Your task to perform on an android device: open app "Google Home" (install if not already installed) Image 0: 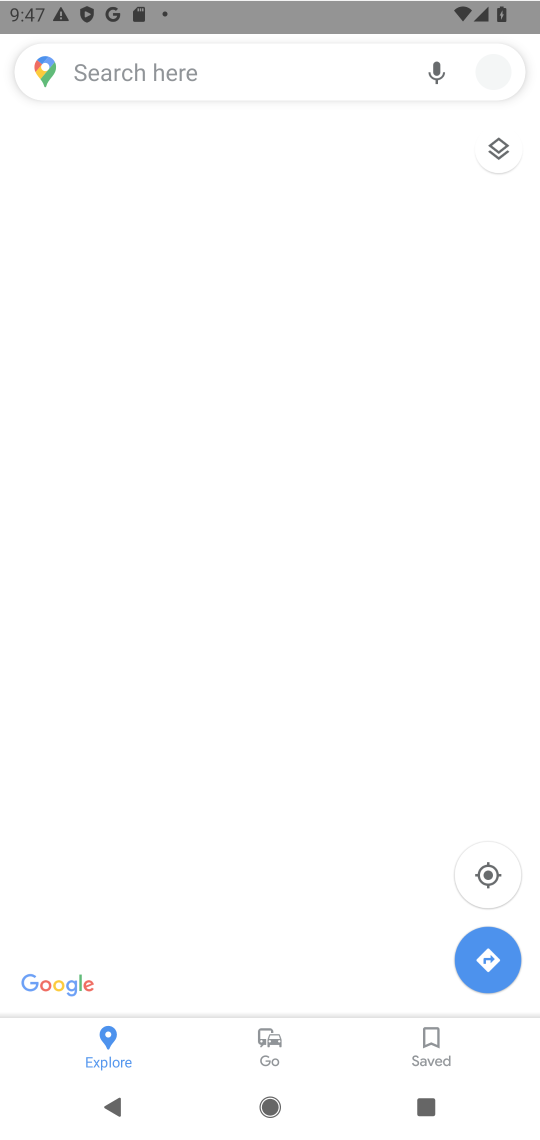
Step 0: press home button
Your task to perform on an android device: open app "Google Home" (install if not already installed) Image 1: 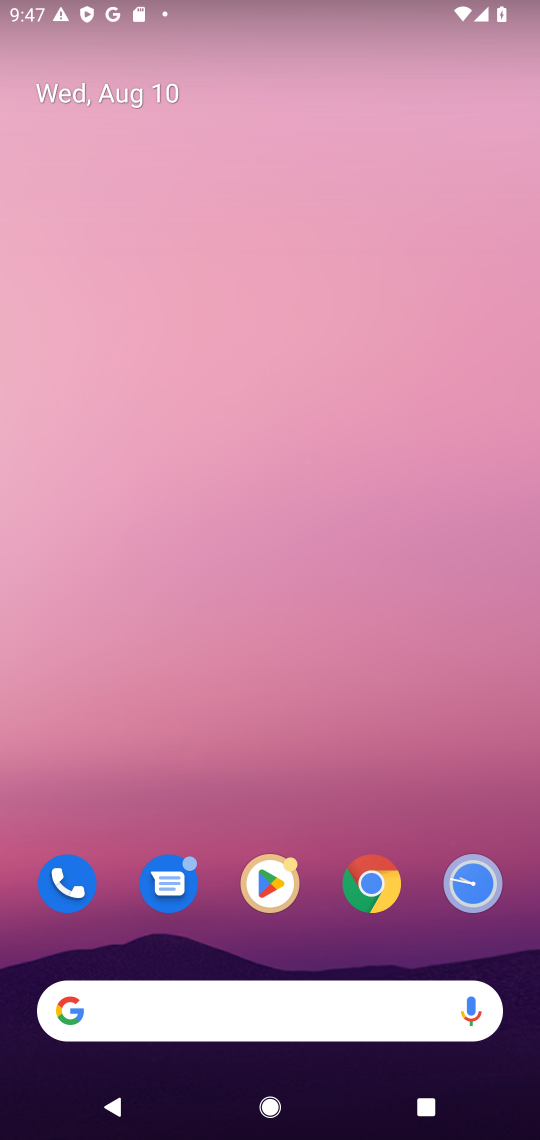
Step 1: drag from (436, 653) to (430, 57)
Your task to perform on an android device: open app "Google Home" (install if not already installed) Image 2: 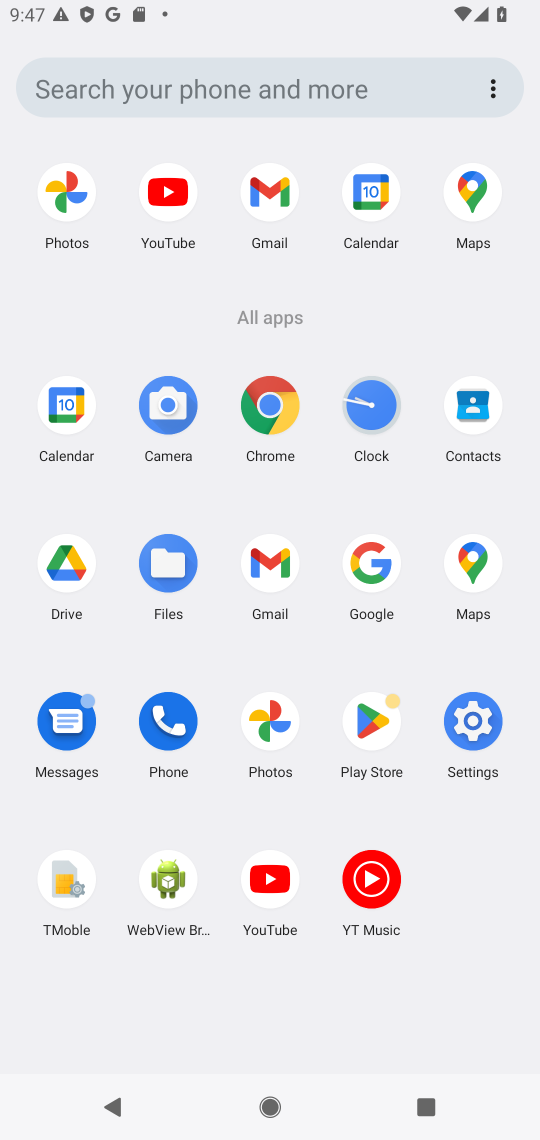
Step 2: click (370, 737)
Your task to perform on an android device: open app "Google Home" (install if not already installed) Image 3: 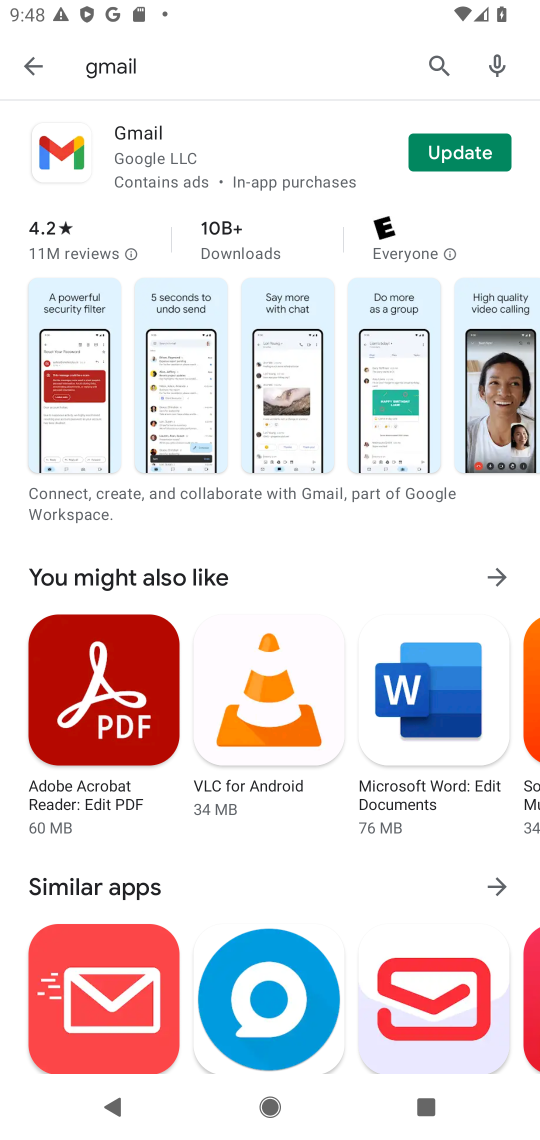
Step 3: click (428, 60)
Your task to perform on an android device: open app "Google Home" (install if not already installed) Image 4: 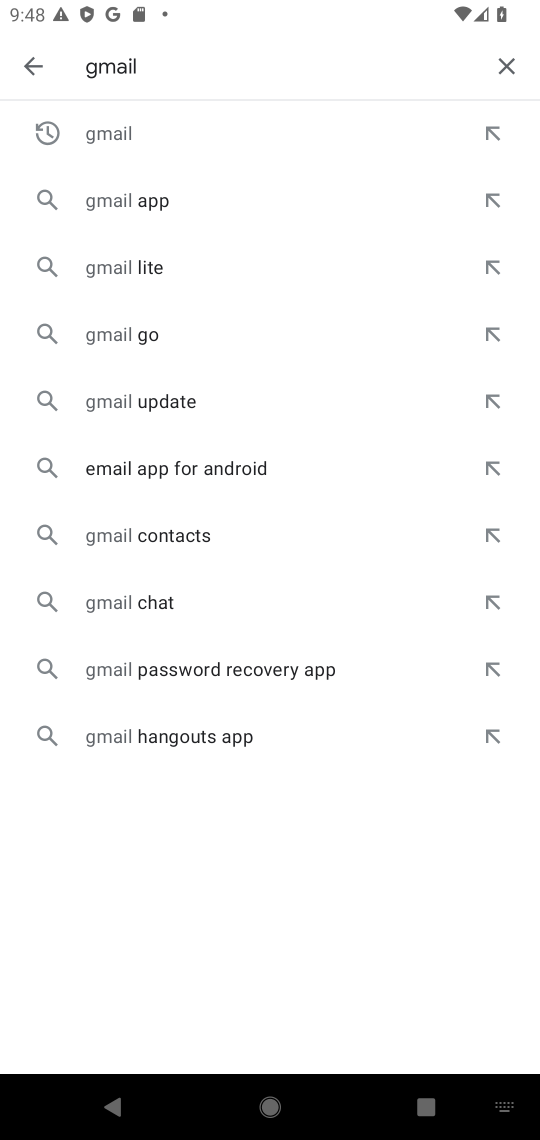
Step 4: click (508, 71)
Your task to perform on an android device: open app "Google Home" (install if not already installed) Image 5: 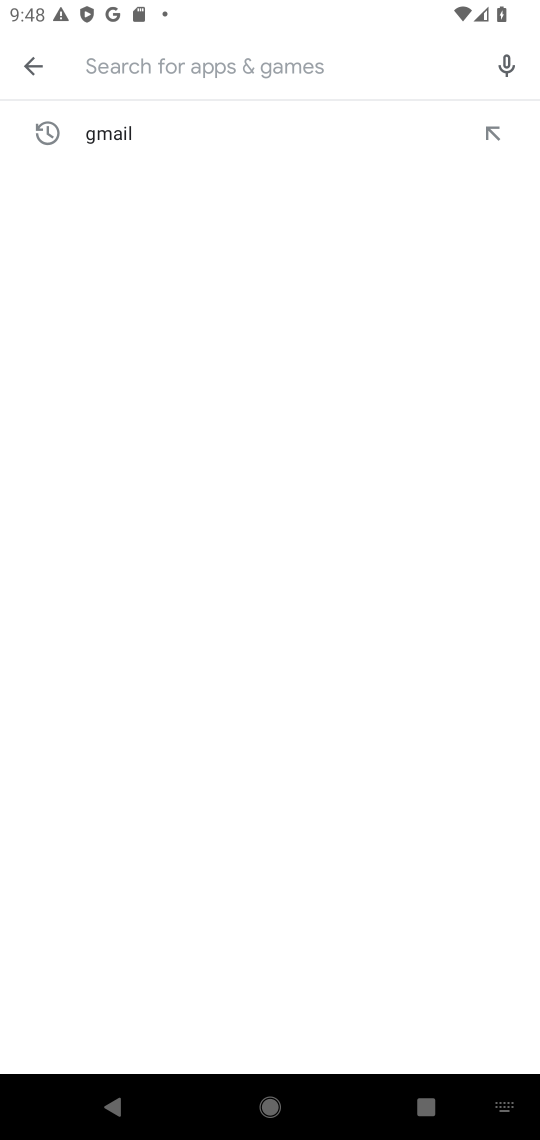
Step 5: type "google home"
Your task to perform on an android device: open app "Google Home" (install if not already installed) Image 6: 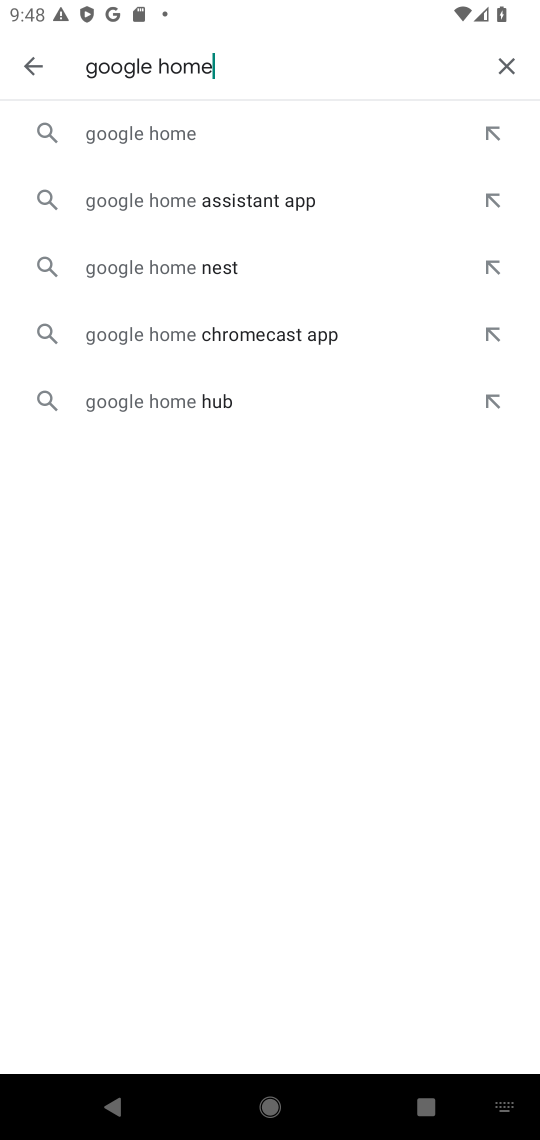
Step 6: click (213, 134)
Your task to perform on an android device: open app "Google Home" (install if not already installed) Image 7: 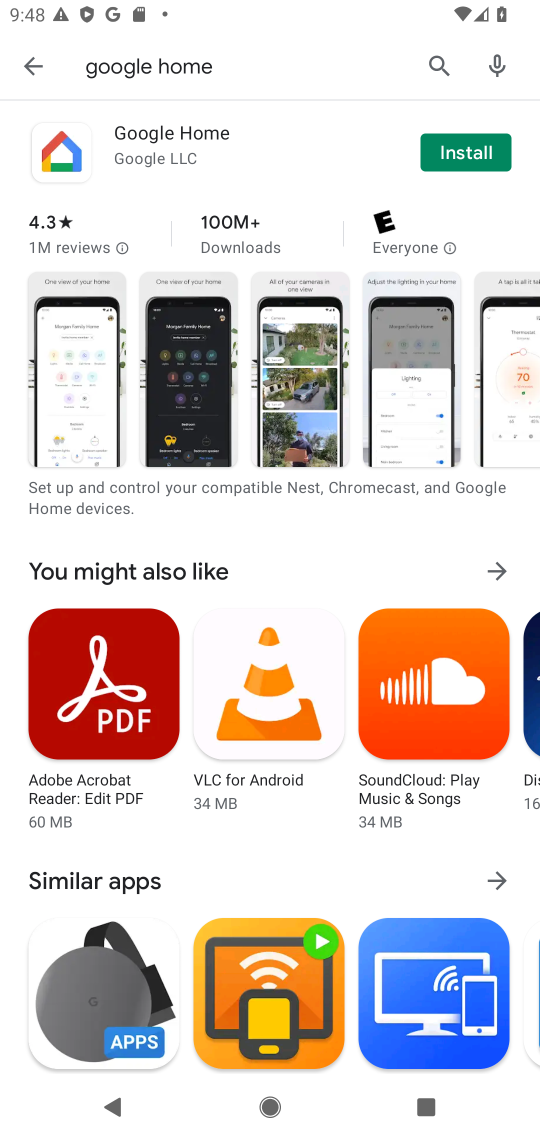
Step 7: click (478, 146)
Your task to perform on an android device: open app "Google Home" (install if not already installed) Image 8: 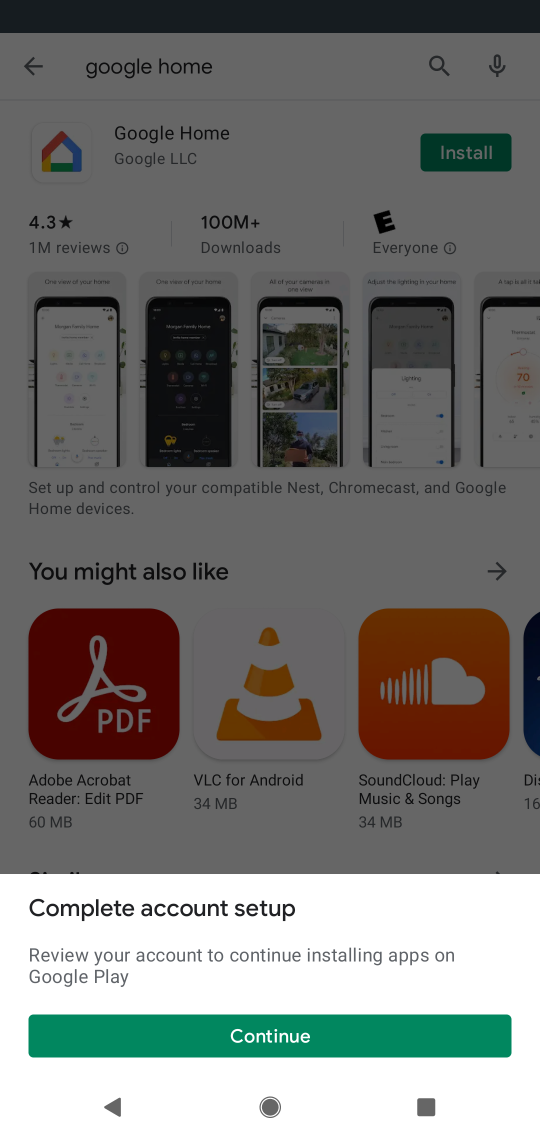
Step 8: click (346, 1033)
Your task to perform on an android device: open app "Google Home" (install if not already installed) Image 9: 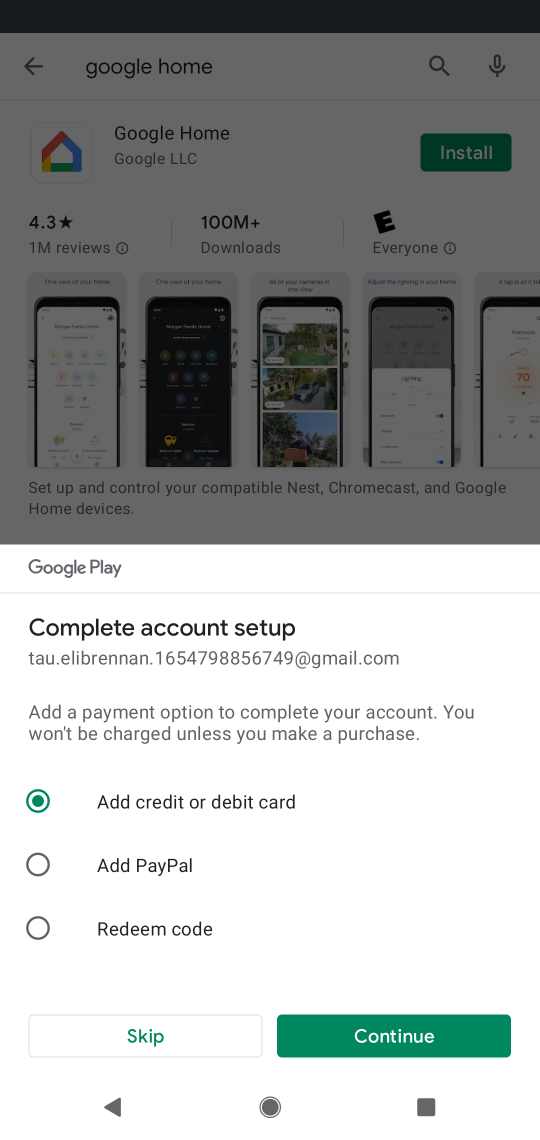
Step 9: click (133, 1047)
Your task to perform on an android device: open app "Google Home" (install if not already installed) Image 10: 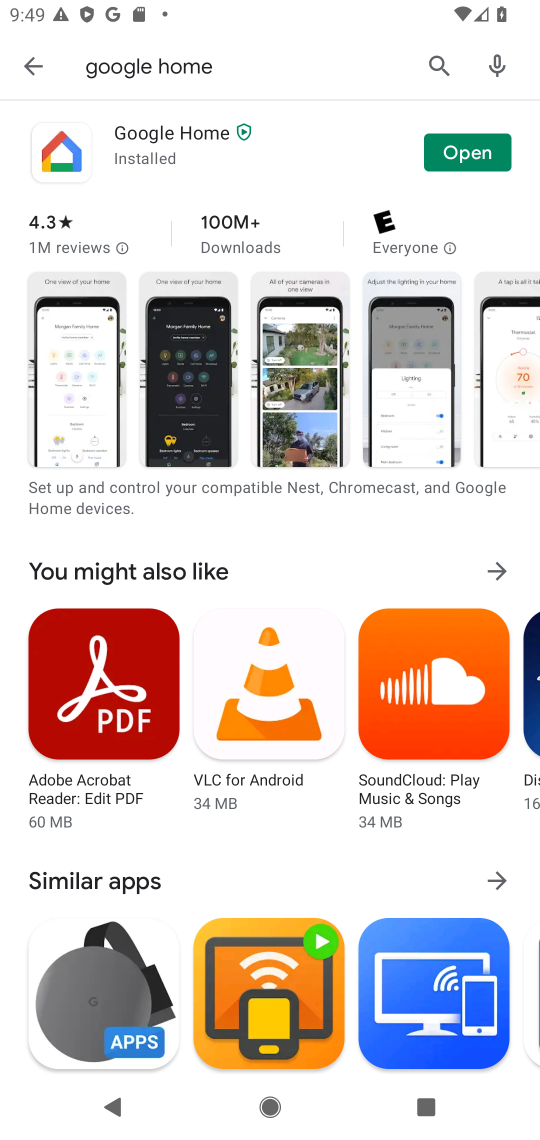
Step 10: click (459, 147)
Your task to perform on an android device: open app "Google Home" (install if not already installed) Image 11: 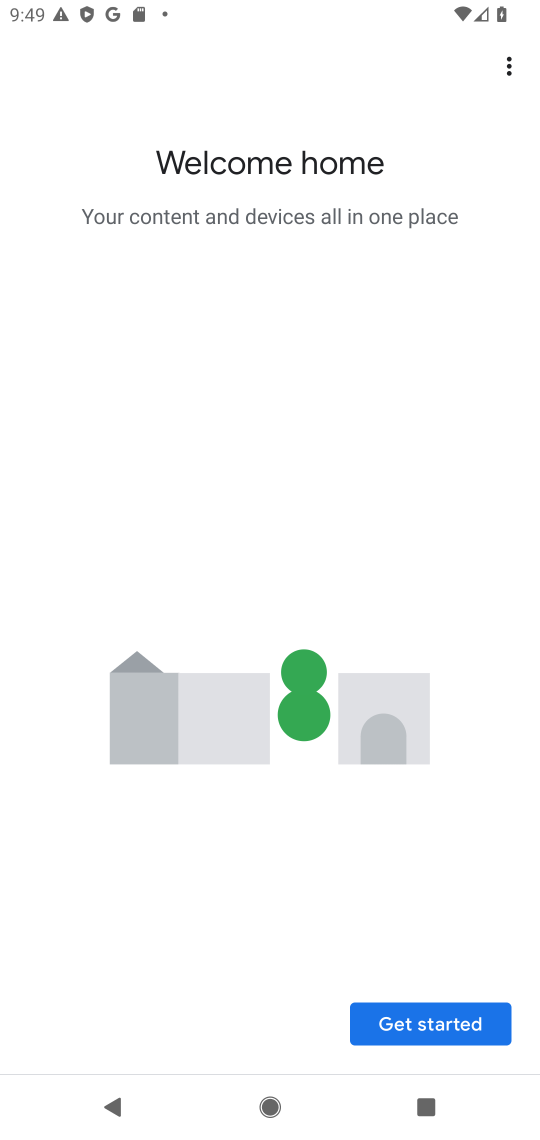
Step 11: task complete